Your task to perform on an android device: turn off sleep mode Image 0: 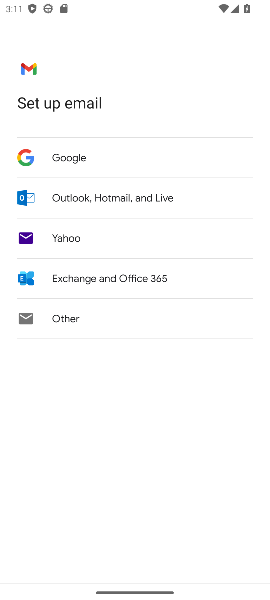
Step 0: press home button
Your task to perform on an android device: turn off sleep mode Image 1: 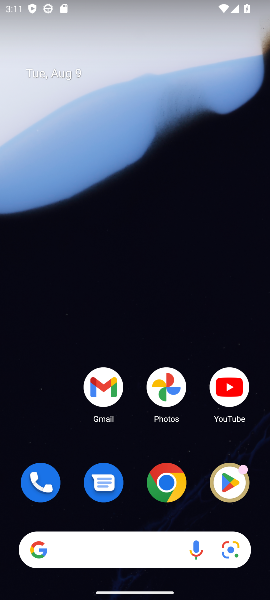
Step 1: drag from (130, 442) to (114, 115)
Your task to perform on an android device: turn off sleep mode Image 2: 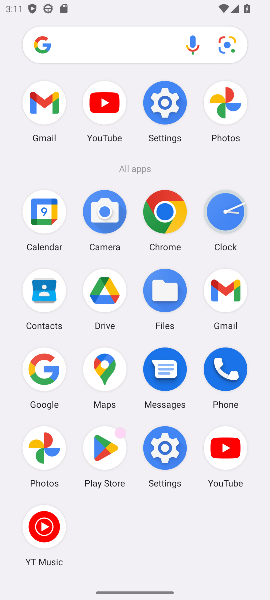
Step 2: click (171, 110)
Your task to perform on an android device: turn off sleep mode Image 3: 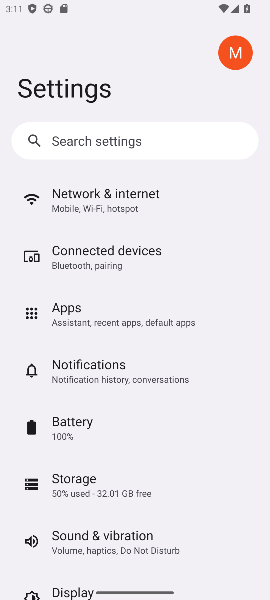
Step 3: drag from (127, 451) to (132, 247)
Your task to perform on an android device: turn off sleep mode Image 4: 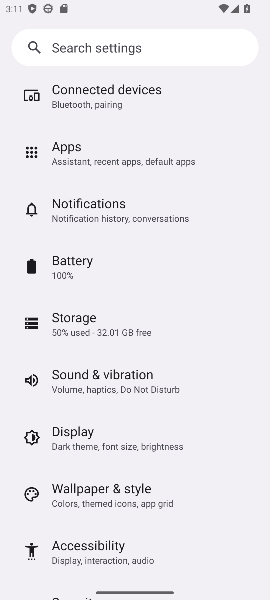
Step 4: click (138, 433)
Your task to perform on an android device: turn off sleep mode Image 5: 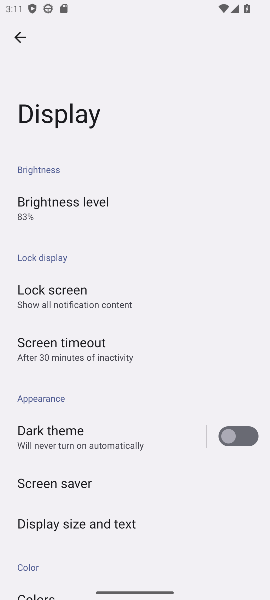
Step 5: click (101, 349)
Your task to perform on an android device: turn off sleep mode Image 6: 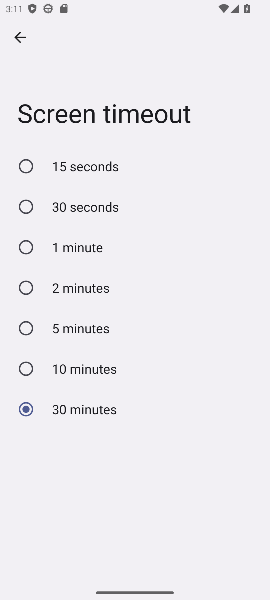
Step 6: click (75, 248)
Your task to perform on an android device: turn off sleep mode Image 7: 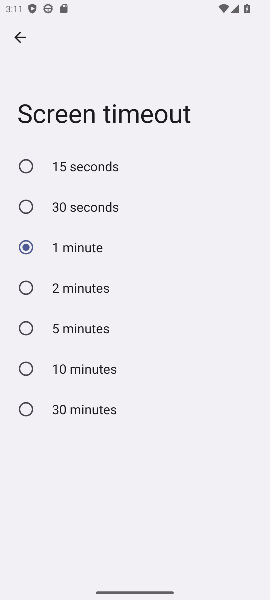
Step 7: task complete